Your task to perform on an android device: create a new album in the google photos Image 0: 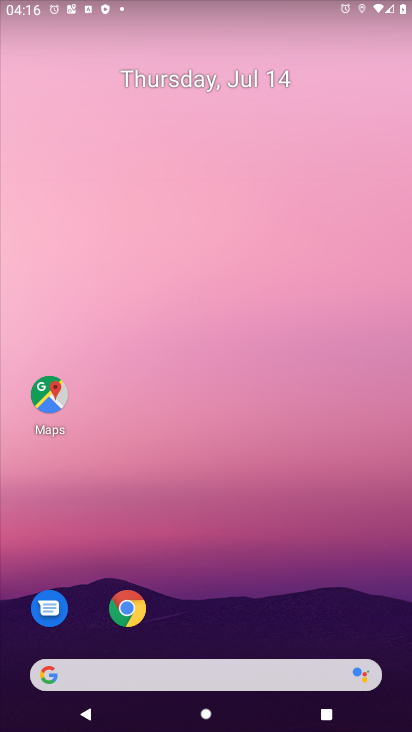
Step 0: drag from (388, 625) to (367, 122)
Your task to perform on an android device: create a new album in the google photos Image 1: 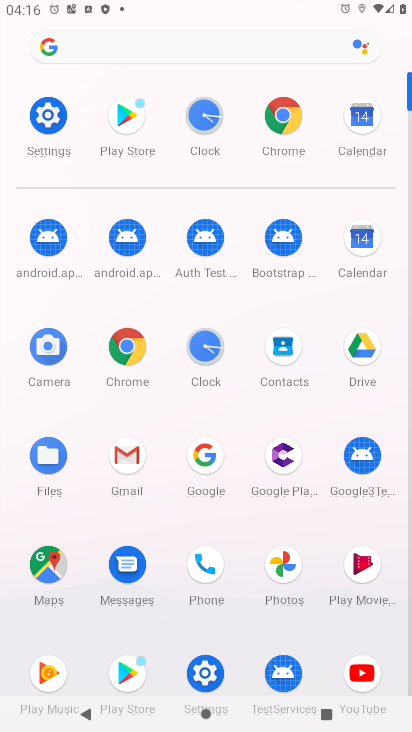
Step 1: click (282, 561)
Your task to perform on an android device: create a new album in the google photos Image 2: 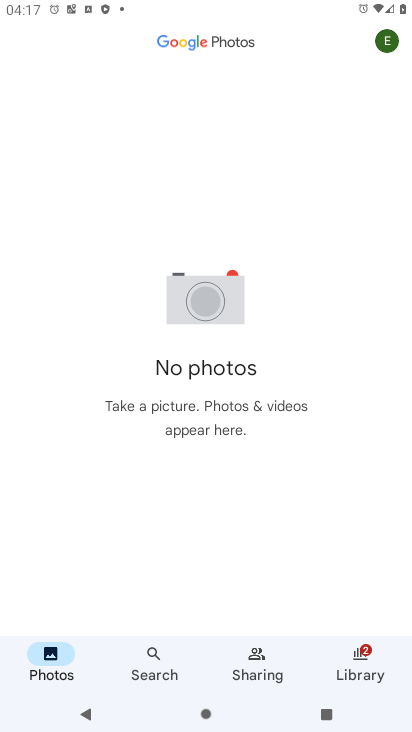
Step 2: click (360, 653)
Your task to perform on an android device: create a new album in the google photos Image 3: 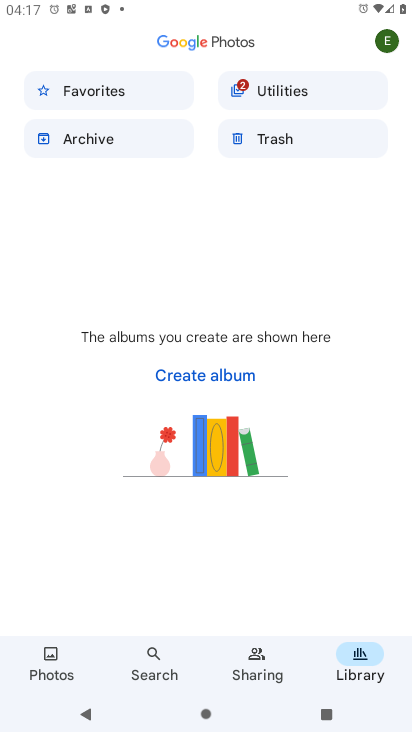
Step 3: click (384, 41)
Your task to perform on an android device: create a new album in the google photos Image 4: 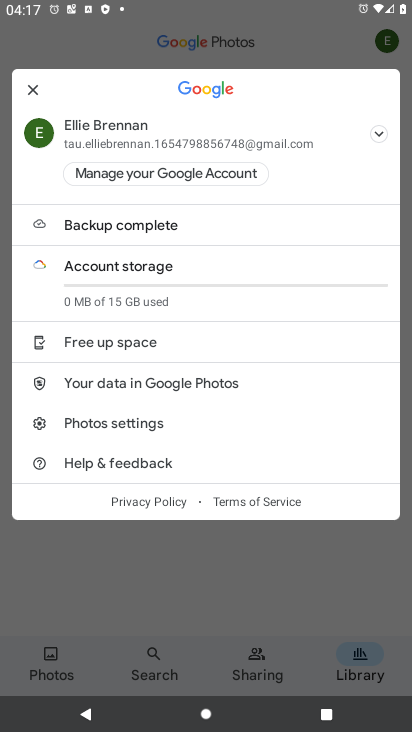
Step 4: click (168, 560)
Your task to perform on an android device: create a new album in the google photos Image 5: 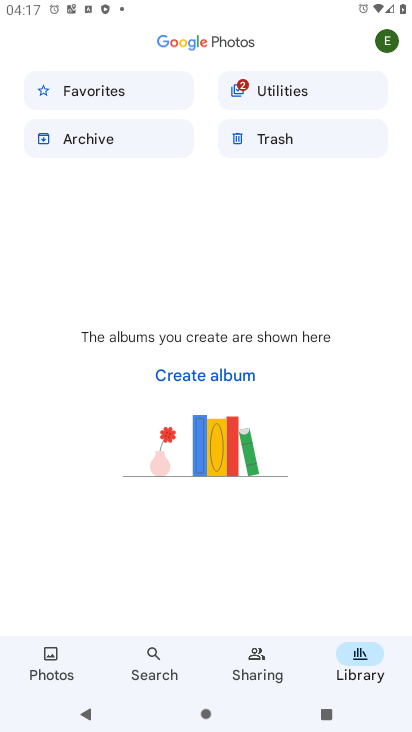
Step 5: click (191, 376)
Your task to perform on an android device: create a new album in the google photos Image 6: 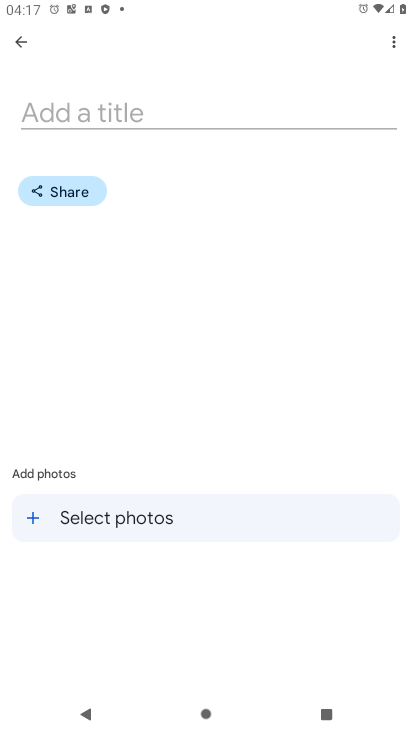
Step 6: click (80, 109)
Your task to perform on an android device: create a new album in the google photos Image 7: 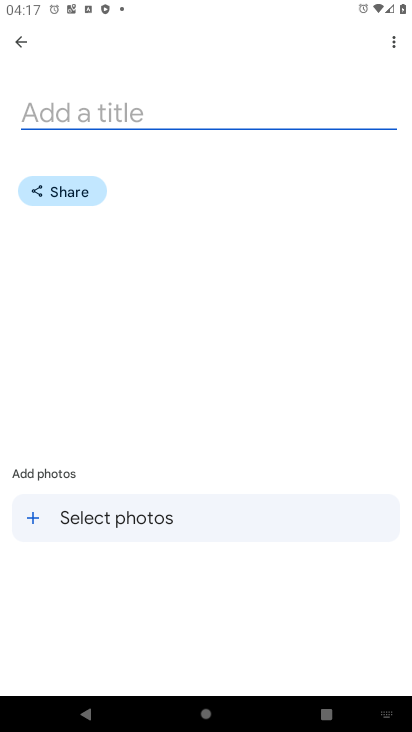
Step 7: type "kjtrgfh"
Your task to perform on an android device: create a new album in the google photos Image 8: 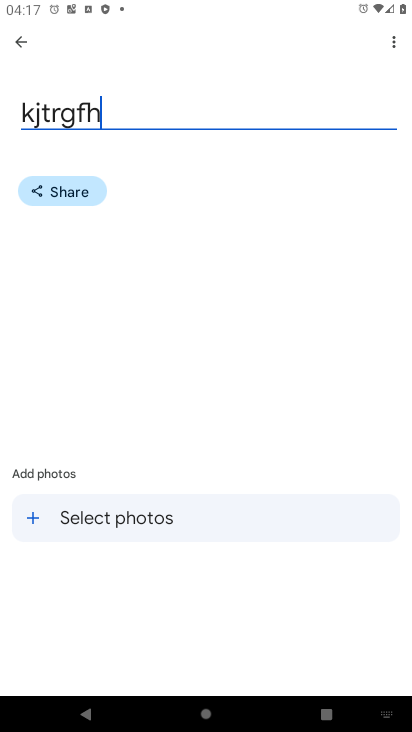
Step 8: click (28, 519)
Your task to perform on an android device: create a new album in the google photos Image 9: 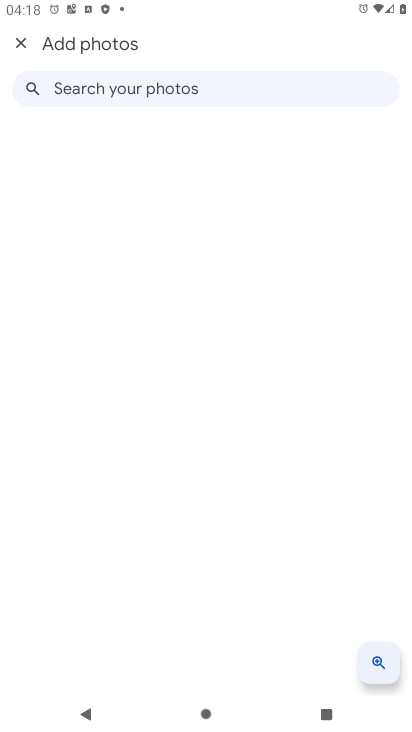
Step 9: task complete